Your task to perform on an android device: Open calendar and show me the first week of next month Image 0: 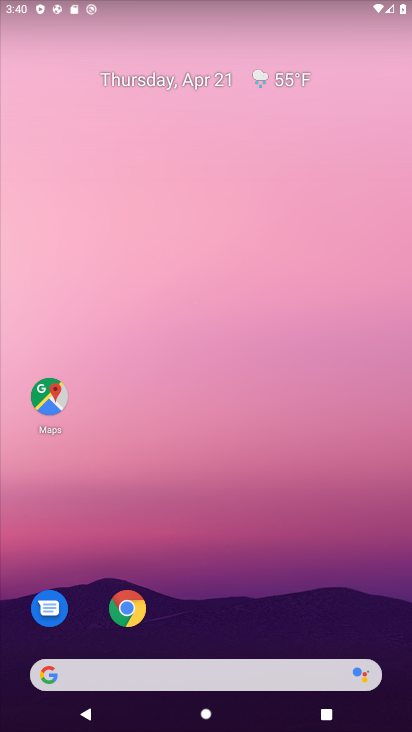
Step 0: drag from (266, 580) to (255, 1)
Your task to perform on an android device: Open calendar and show me the first week of next month Image 1: 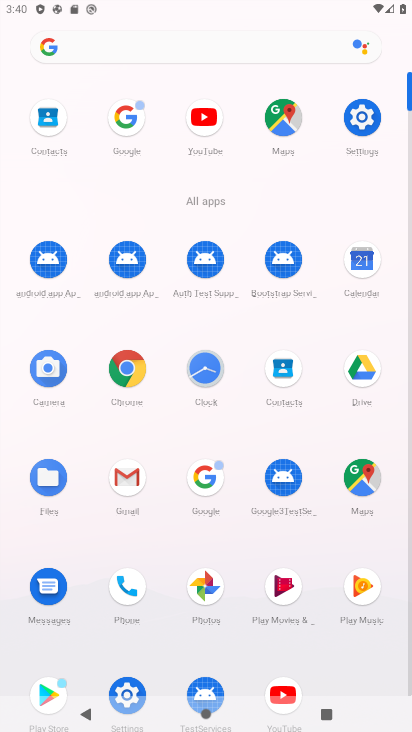
Step 1: click (359, 270)
Your task to perform on an android device: Open calendar and show me the first week of next month Image 2: 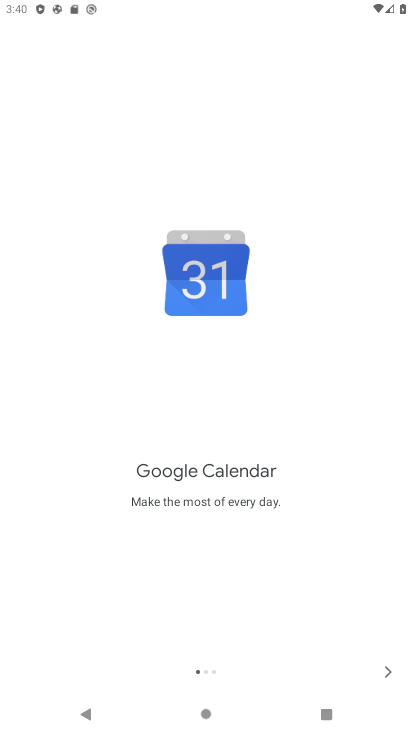
Step 2: click (389, 668)
Your task to perform on an android device: Open calendar and show me the first week of next month Image 3: 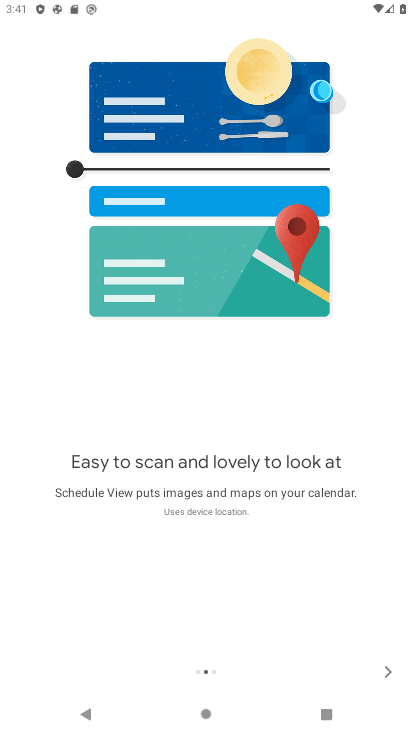
Step 3: click (390, 672)
Your task to perform on an android device: Open calendar and show me the first week of next month Image 4: 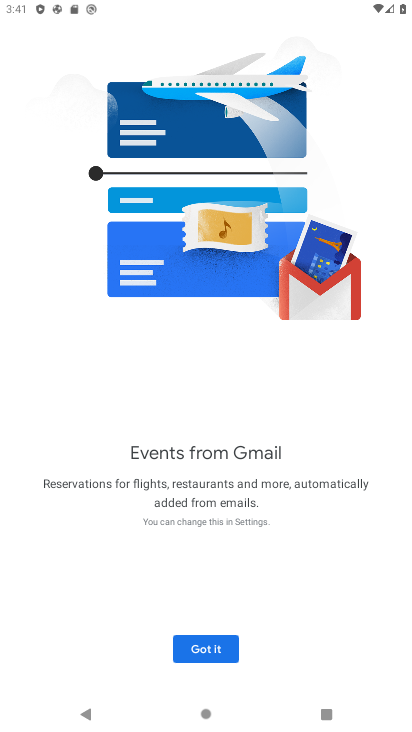
Step 4: click (222, 649)
Your task to perform on an android device: Open calendar and show me the first week of next month Image 5: 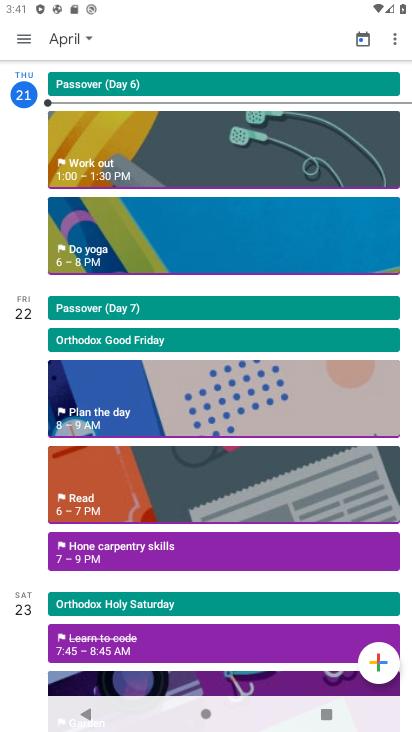
Step 5: click (60, 42)
Your task to perform on an android device: Open calendar and show me the first week of next month Image 6: 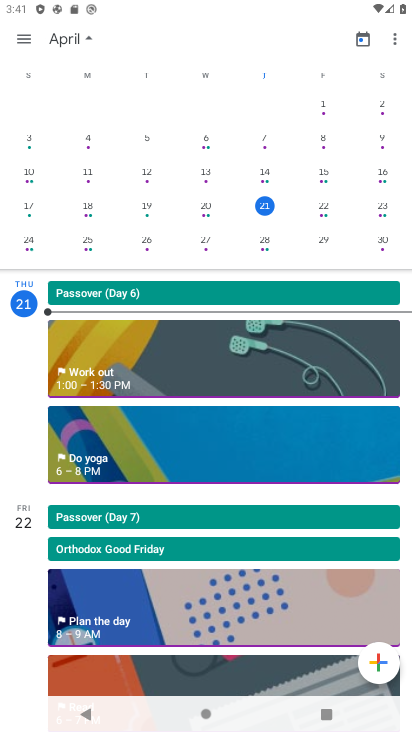
Step 6: task complete